Your task to perform on an android device: install app "Adobe Acrobat Reader: Edit PDF" Image 0: 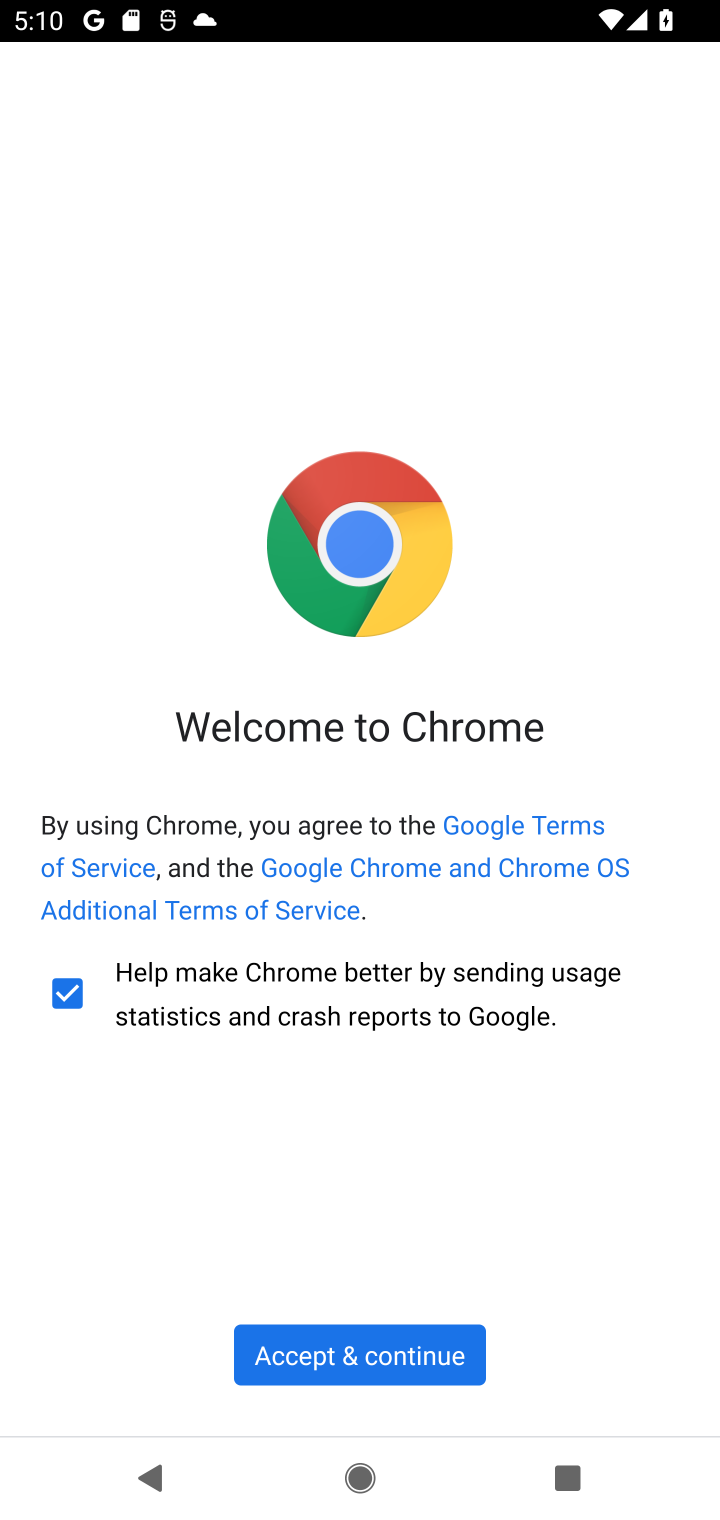
Step 0: press home button
Your task to perform on an android device: install app "Adobe Acrobat Reader: Edit PDF" Image 1: 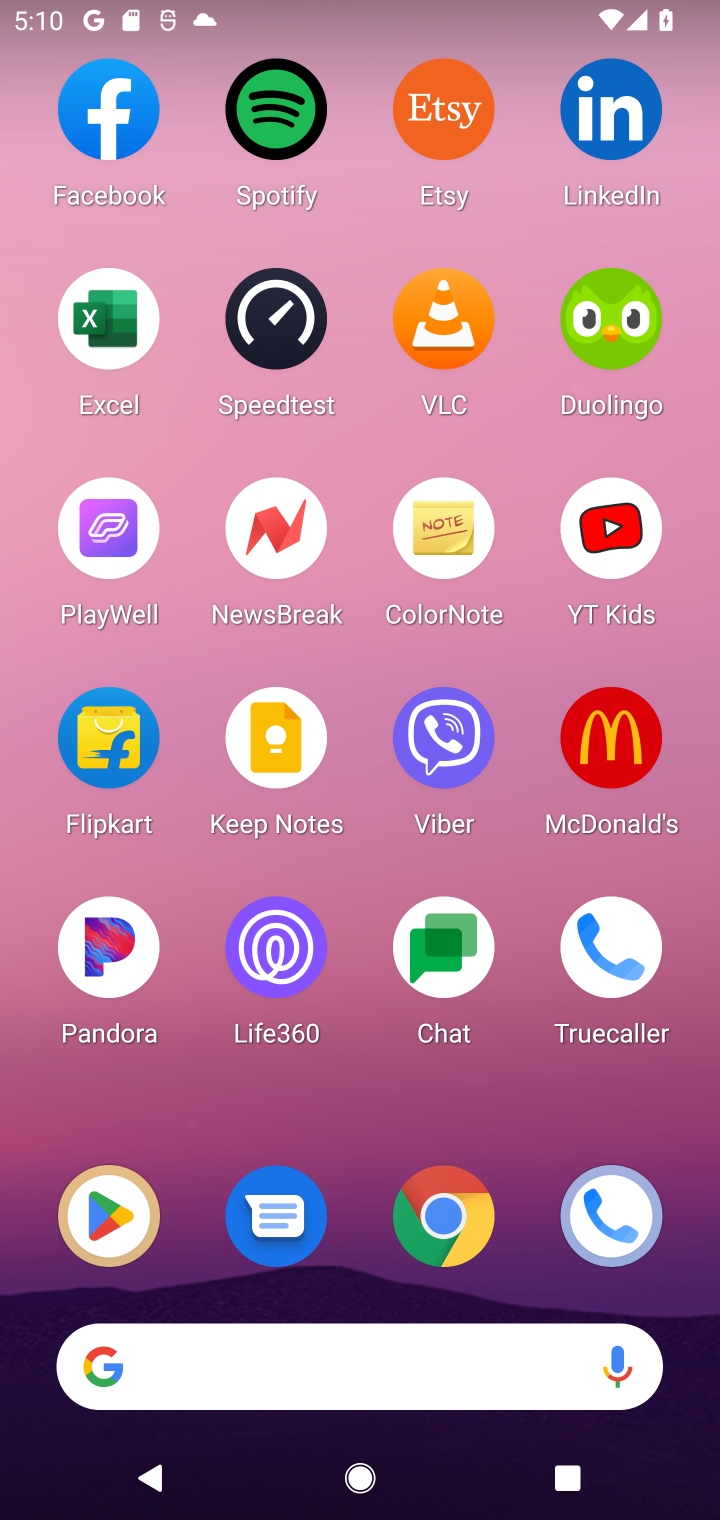
Step 1: click (113, 1231)
Your task to perform on an android device: install app "Adobe Acrobat Reader: Edit PDF" Image 2: 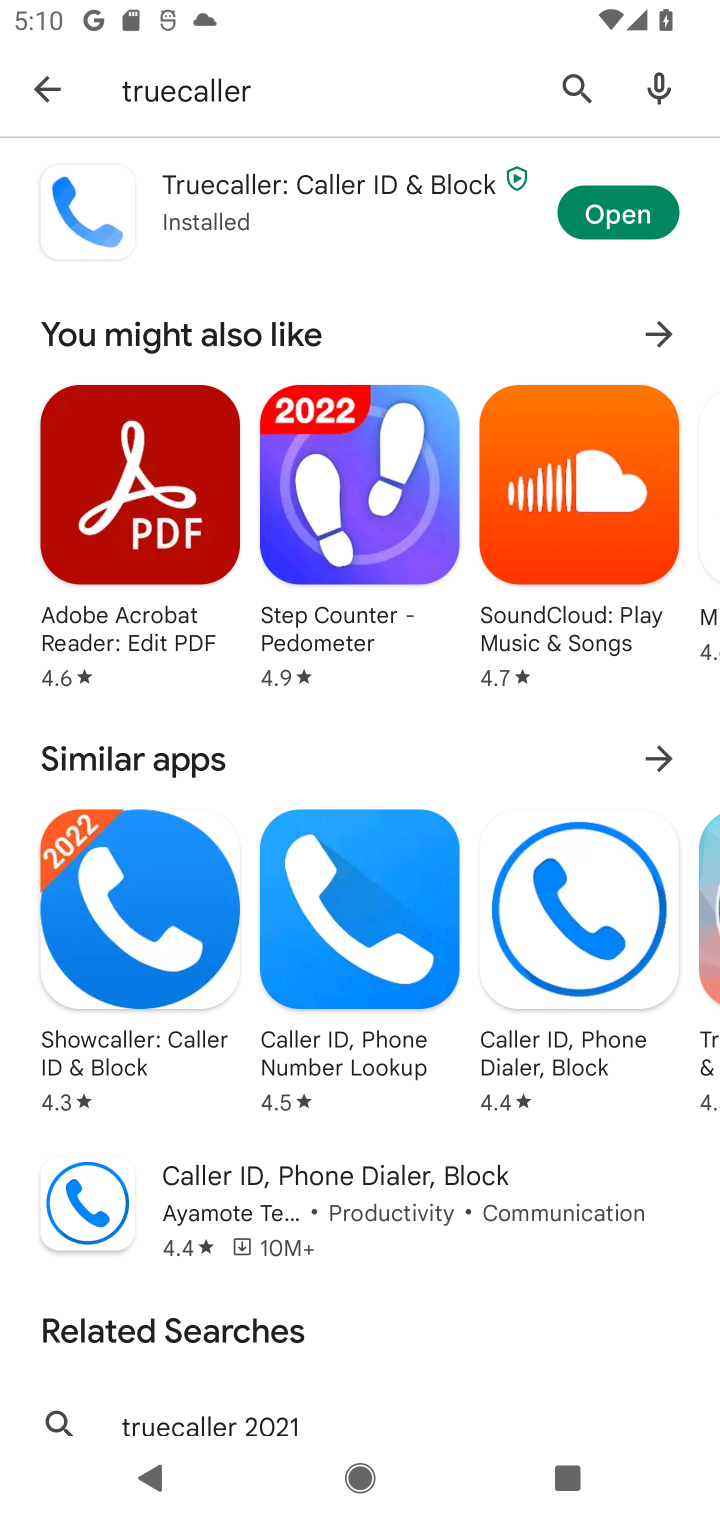
Step 2: click (133, 474)
Your task to perform on an android device: install app "Adobe Acrobat Reader: Edit PDF" Image 3: 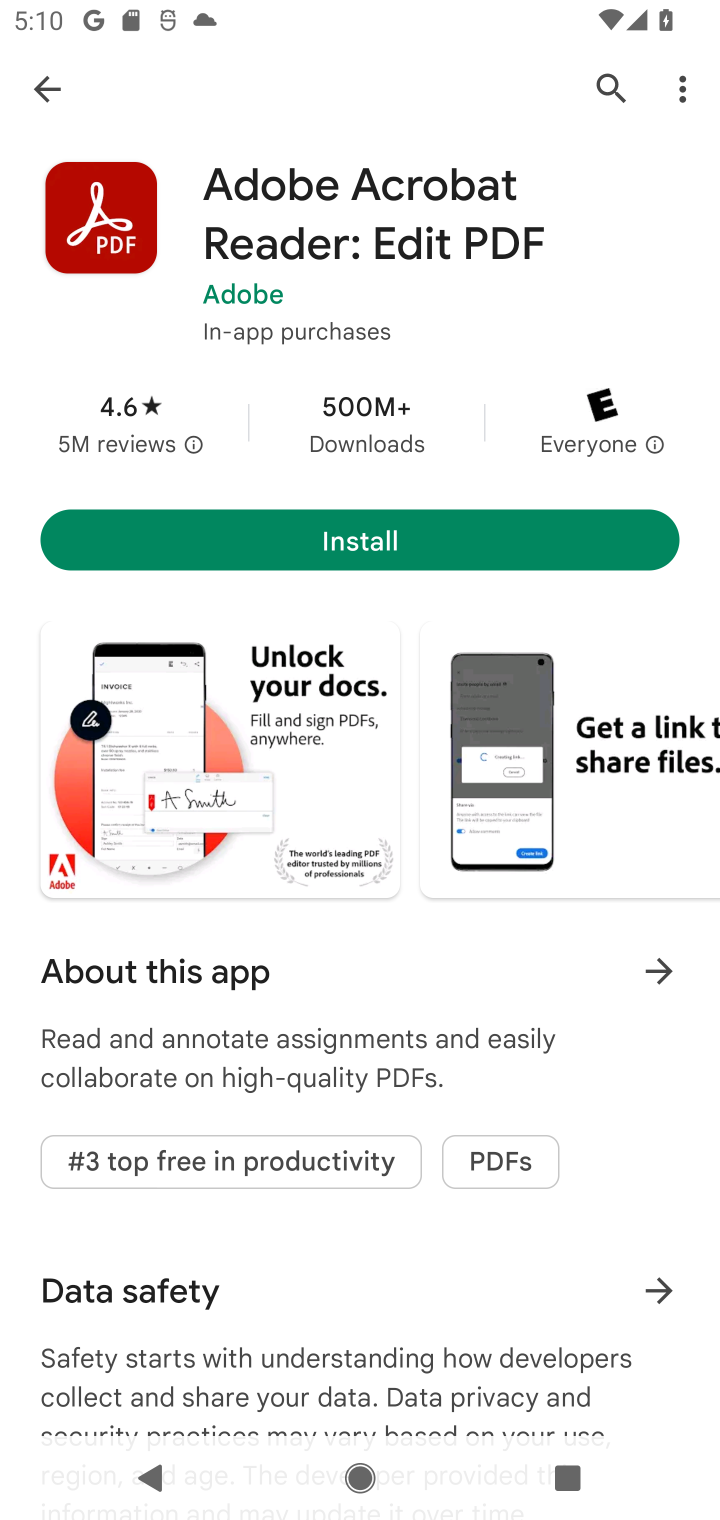
Step 3: click (288, 546)
Your task to perform on an android device: install app "Adobe Acrobat Reader: Edit PDF" Image 4: 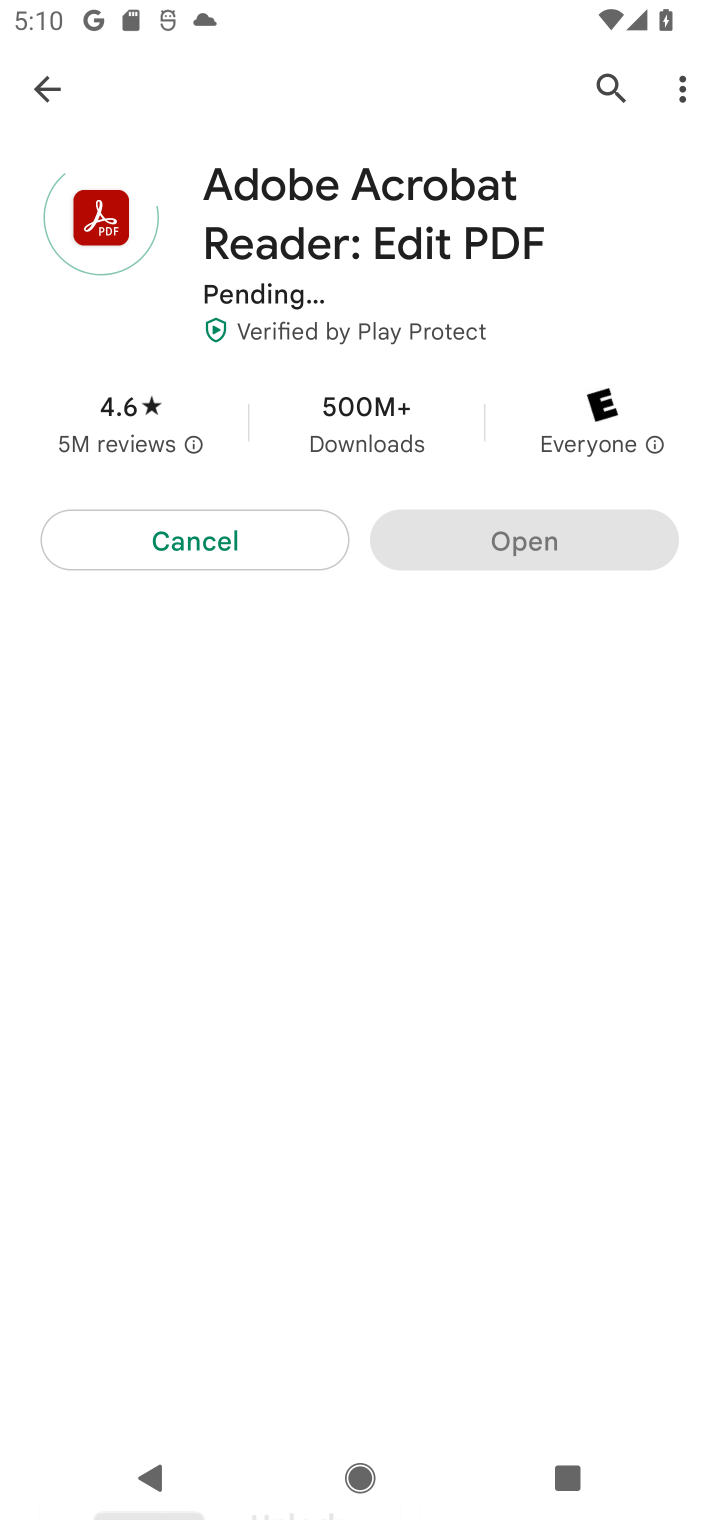
Step 4: task complete